Your task to perform on an android device: create a new album in the google photos Image 0: 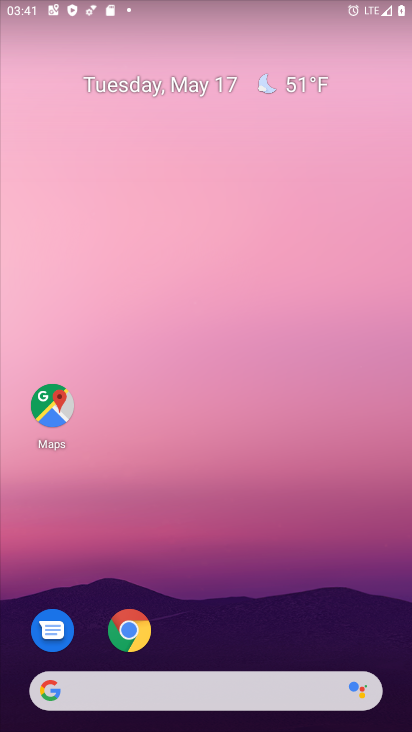
Step 0: drag from (215, 557) to (268, 134)
Your task to perform on an android device: create a new album in the google photos Image 1: 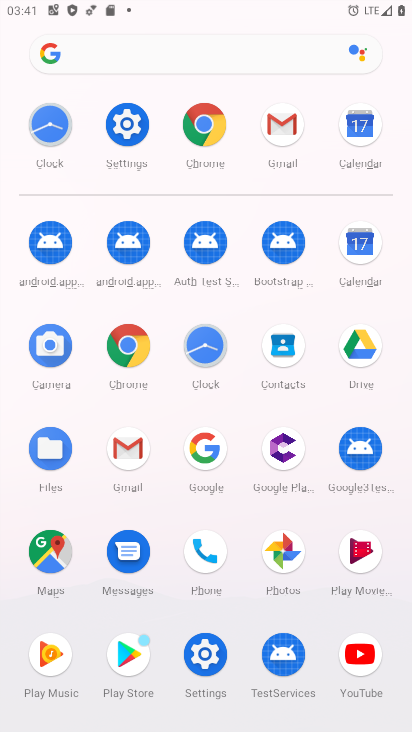
Step 1: click (286, 559)
Your task to perform on an android device: create a new album in the google photos Image 2: 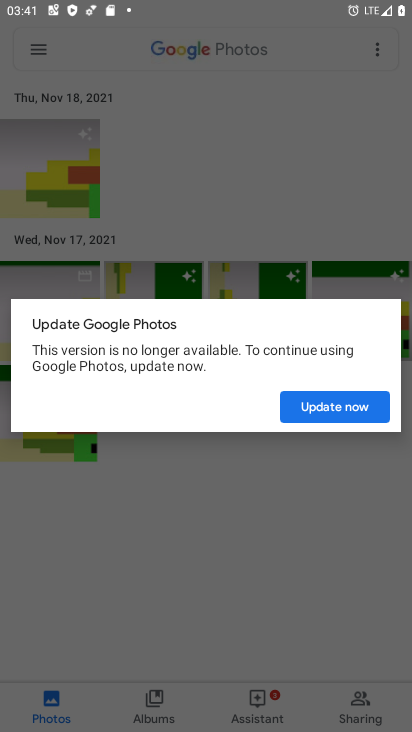
Step 2: click (308, 414)
Your task to perform on an android device: create a new album in the google photos Image 3: 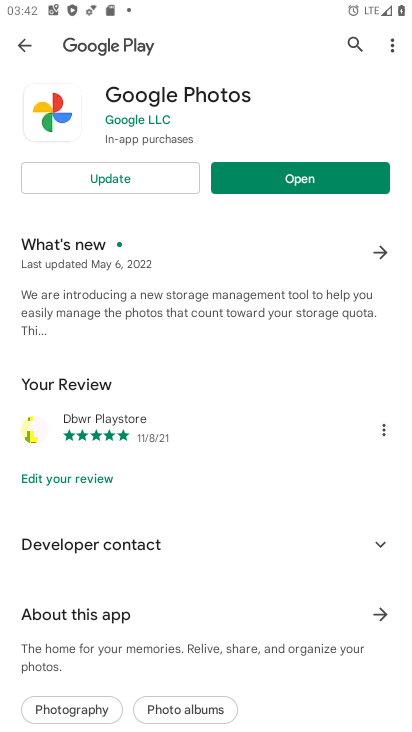
Step 3: press back button
Your task to perform on an android device: create a new album in the google photos Image 4: 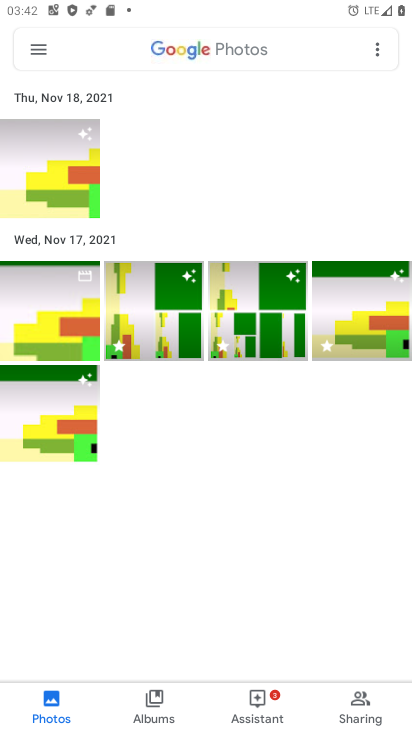
Step 4: click (149, 705)
Your task to perform on an android device: create a new album in the google photos Image 5: 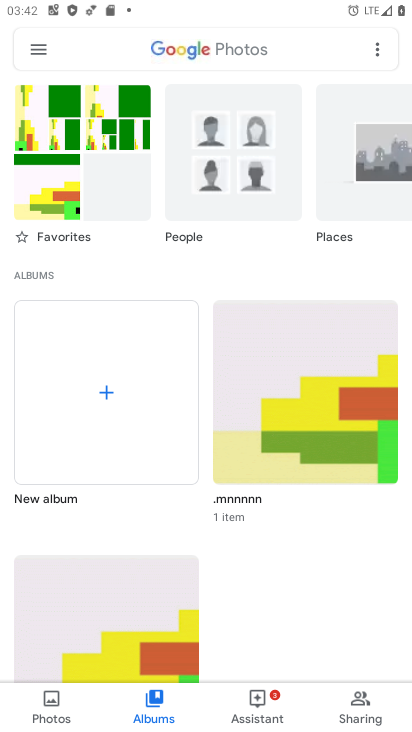
Step 5: click (374, 46)
Your task to perform on an android device: create a new album in the google photos Image 6: 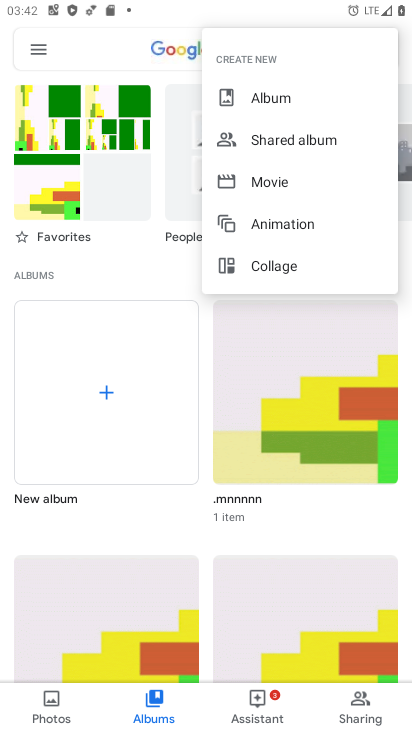
Step 6: click (260, 96)
Your task to perform on an android device: create a new album in the google photos Image 7: 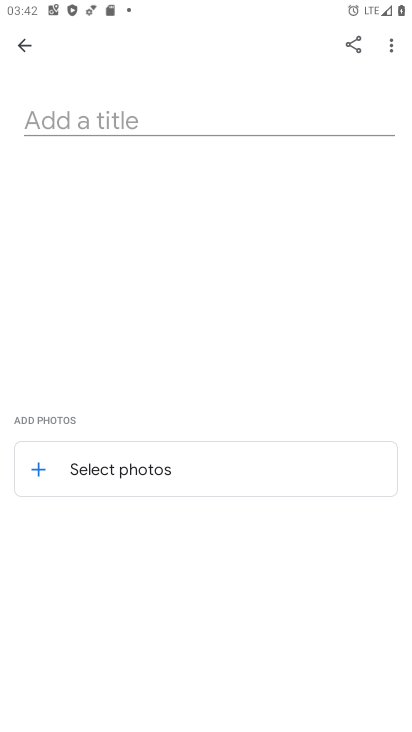
Step 7: click (94, 109)
Your task to perform on an android device: create a new album in the google photos Image 8: 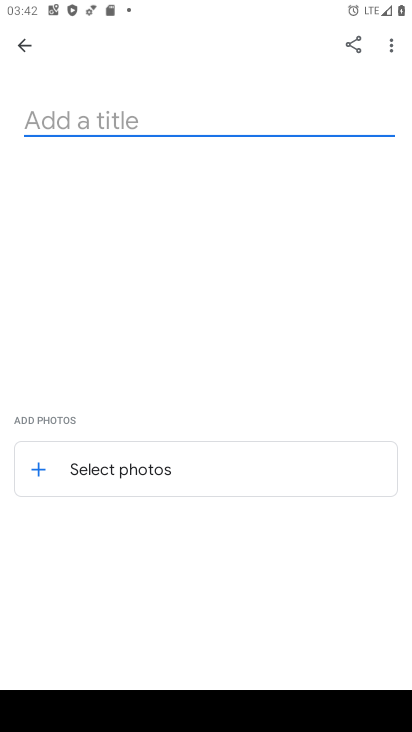
Step 8: type "hh"
Your task to perform on an android device: create a new album in the google photos Image 9: 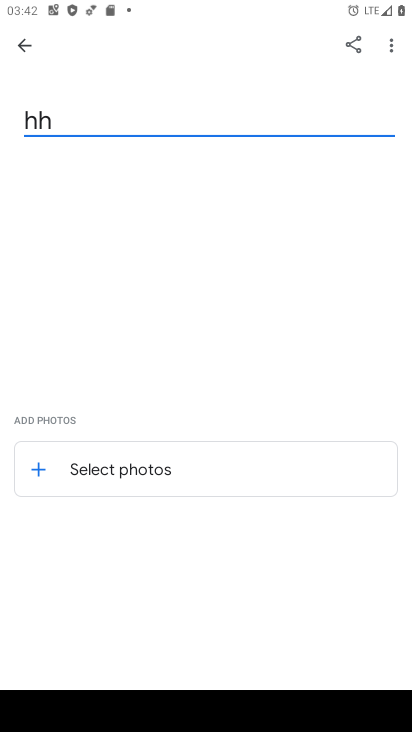
Step 9: click (90, 480)
Your task to perform on an android device: create a new album in the google photos Image 10: 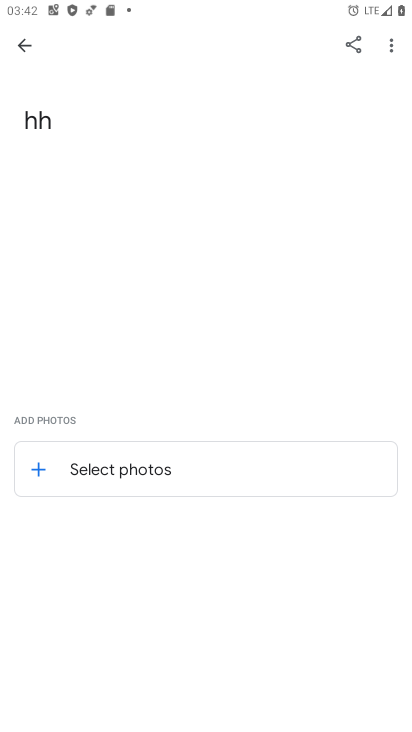
Step 10: click (105, 467)
Your task to perform on an android device: create a new album in the google photos Image 11: 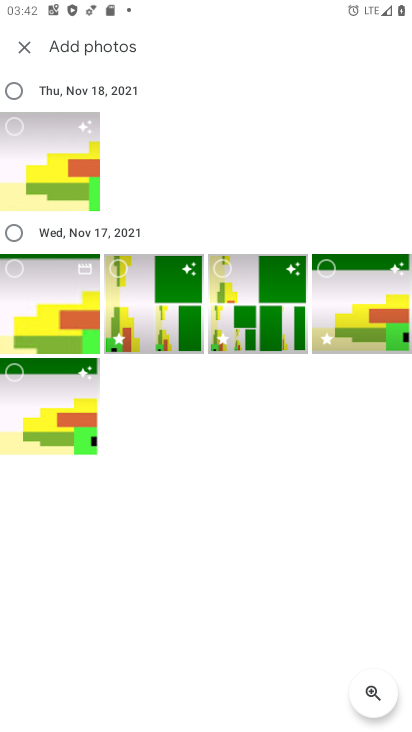
Step 11: click (0, 87)
Your task to perform on an android device: create a new album in the google photos Image 12: 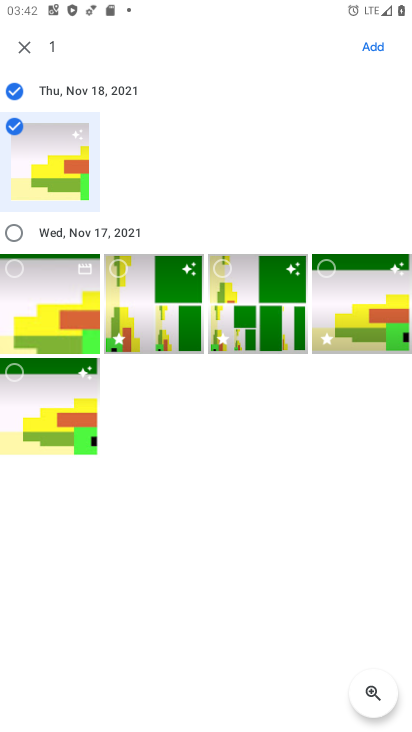
Step 12: click (16, 235)
Your task to perform on an android device: create a new album in the google photos Image 13: 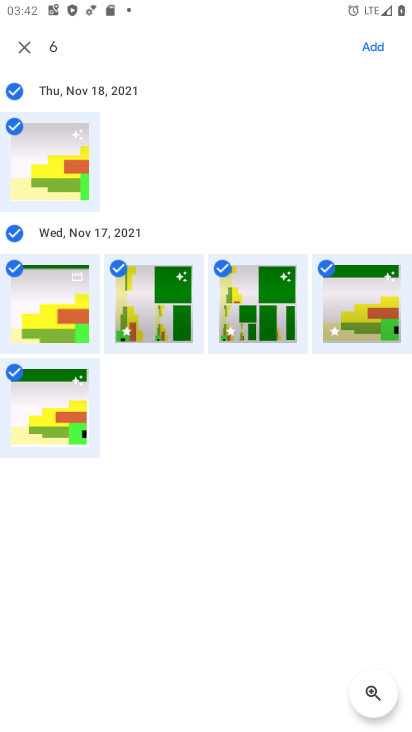
Step 13: click (360, 45)
Your task to perform on an android device: create a new album in the google photos Image 14: 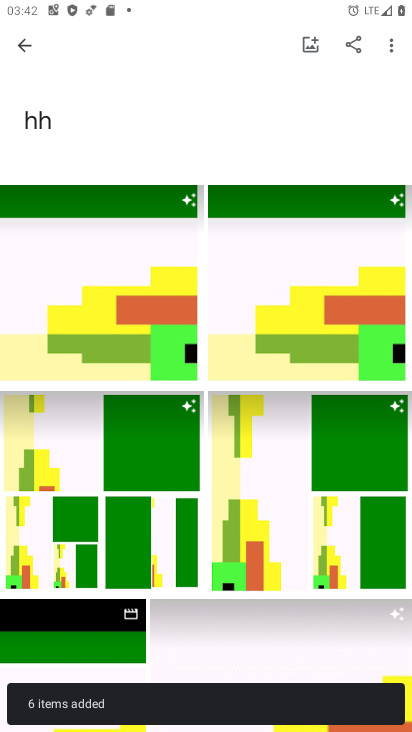
Step 14: task complete